Your task to perform on an android device: turn on wifi Image 0: 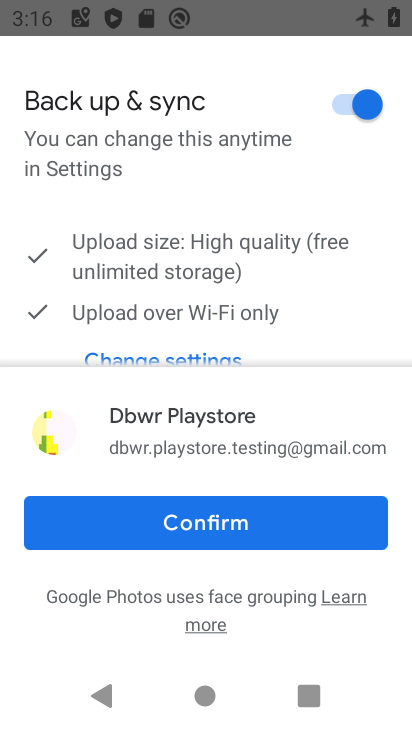
Step 0: press home button
Your task to perform on an android device: turn on wifi Image 1: 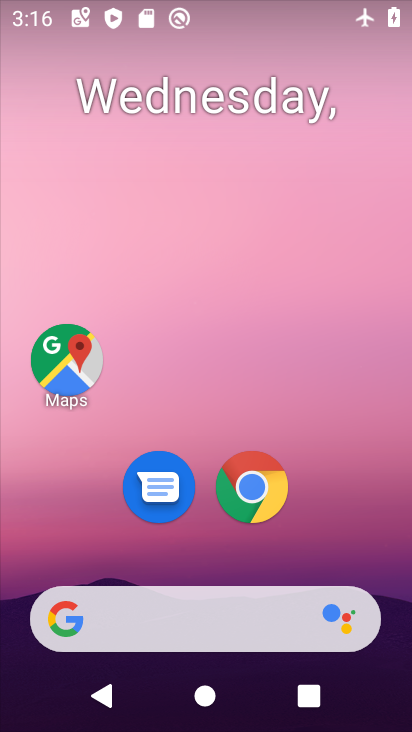
Step 1: drag from (368, 434) to (298, 0)
Your task to perform on an android device: turn on wifi Image 2: 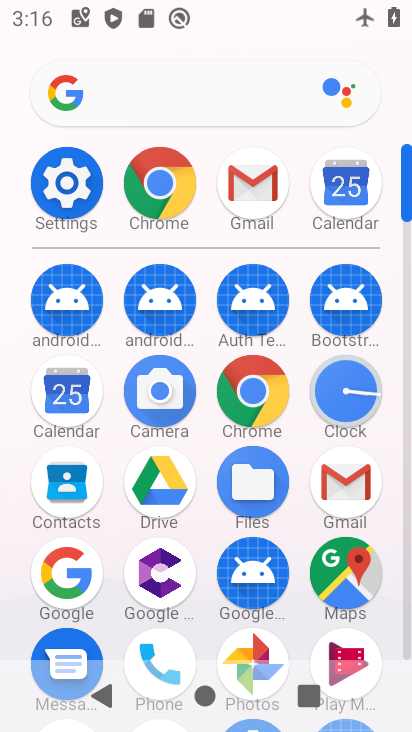
Step 2: click (70, 182)
Your task to perform on an android device: turn on wifi Image 3: 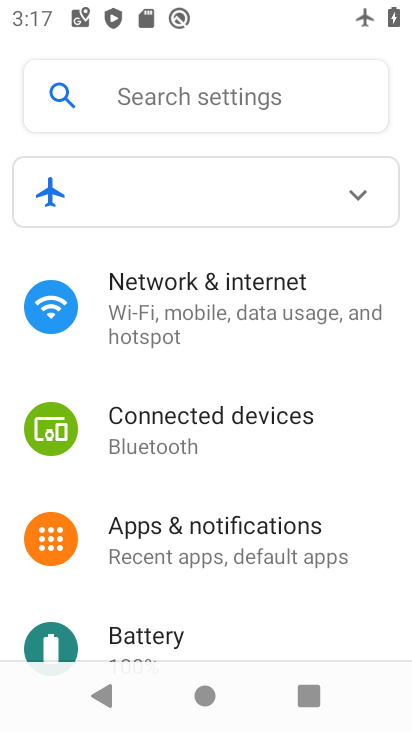
Step 3: click (129, 304)
Your task to perform on an android device: turn on wifi Image 4: 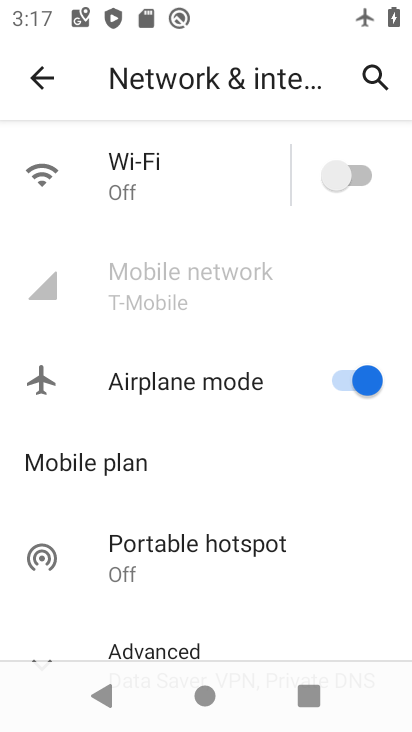
Step 4: click (353, 175)
Your task to perform on an android device: turn on wifi Image 5: 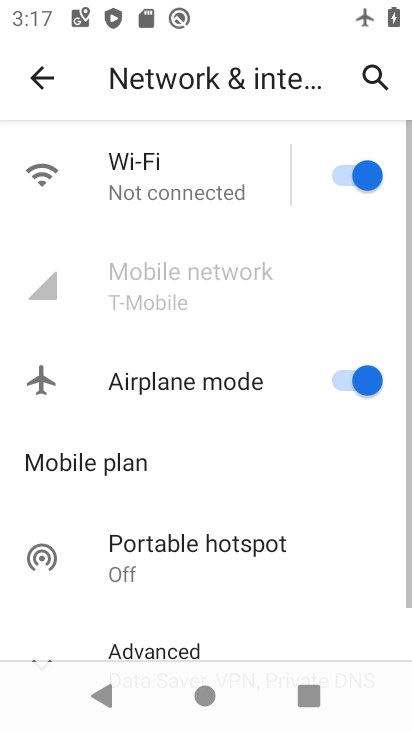
Step 5: task complete